Your task to perform on an android device: change the clock display to analog Image 0: 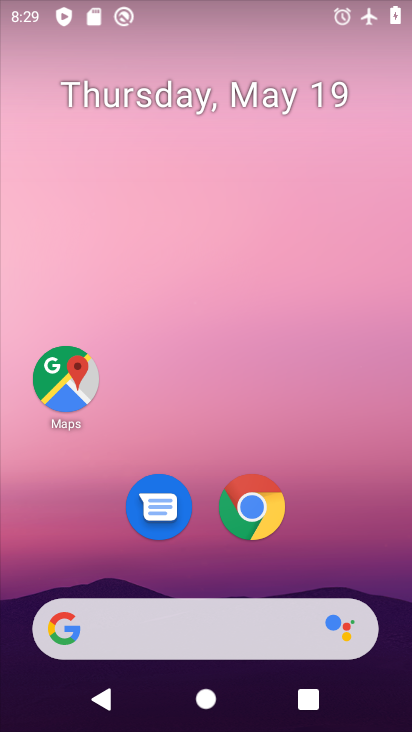
Step 0: drag from (222, 698) to (234, 171)
Your task to perform on an android device: change the clock display to analog Image 1: 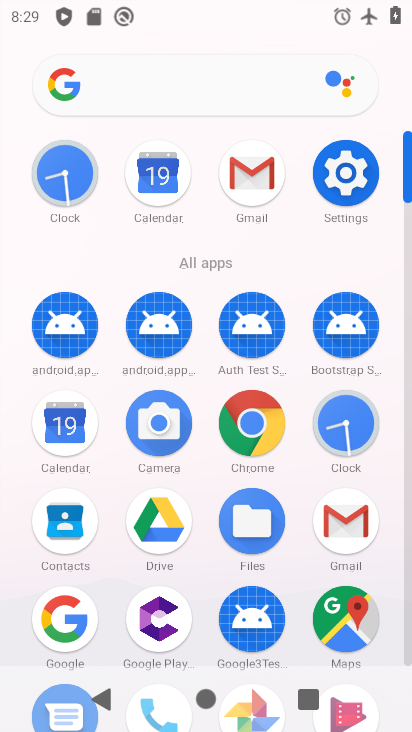
Step 1: click (352, 435)
Your task to perform on an android device: change the clock display to analog Image 2: 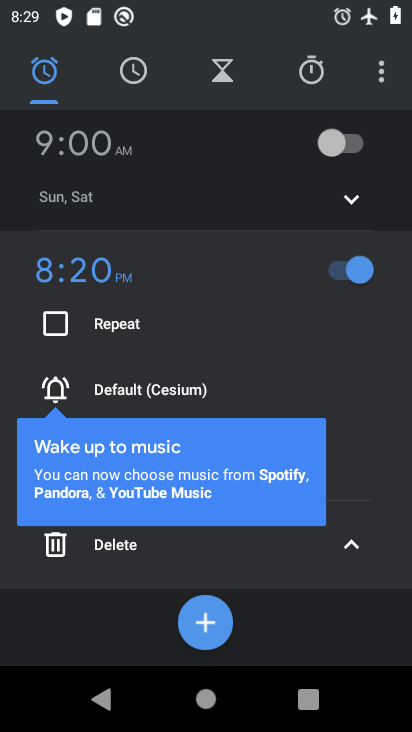
Step 2: click (384, 84)
Your task to perform on an android device: change the clock display to analog Image 3: 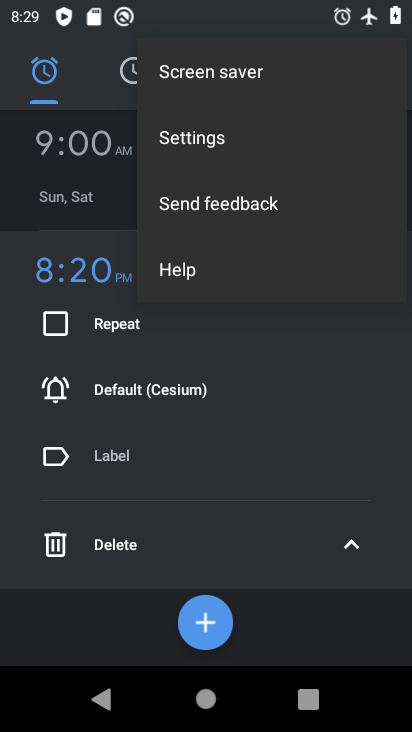
Step 3: click (200, 134)
Your task to perform on an android device: change the clock display to analog Image 4: 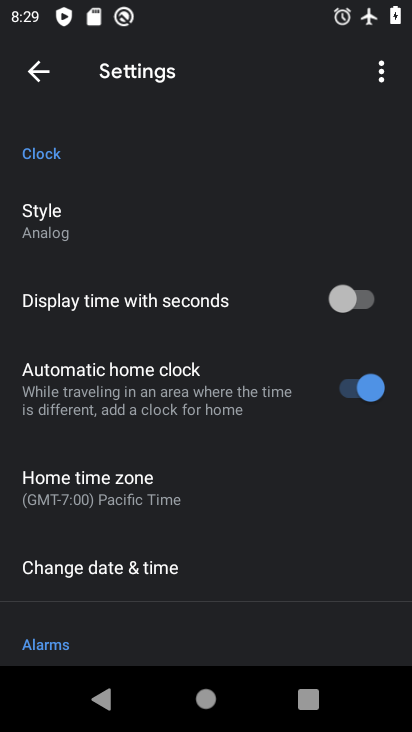
Step 4: task complete